Your task to perform on an android device: check google app version Image 0: 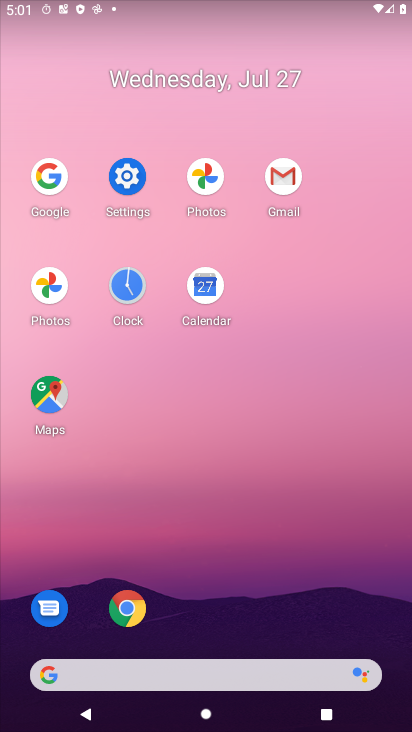
Step 0: click (45, 175)
Your task to perform on an android device: check google app version Image 1: 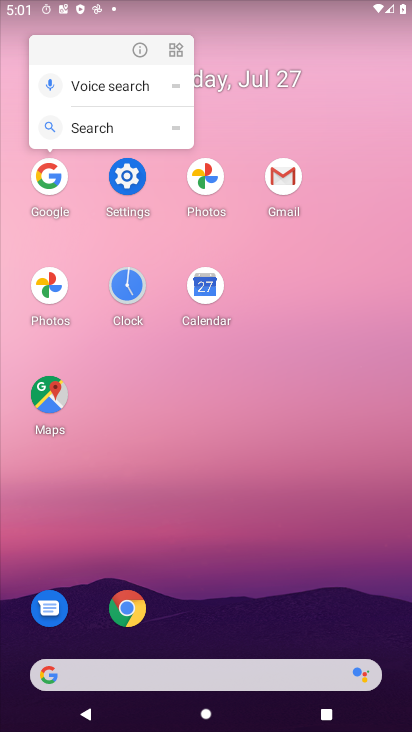
Step 1: click (143, 51)
Your task to perform on an android device: check google app version Image 2: 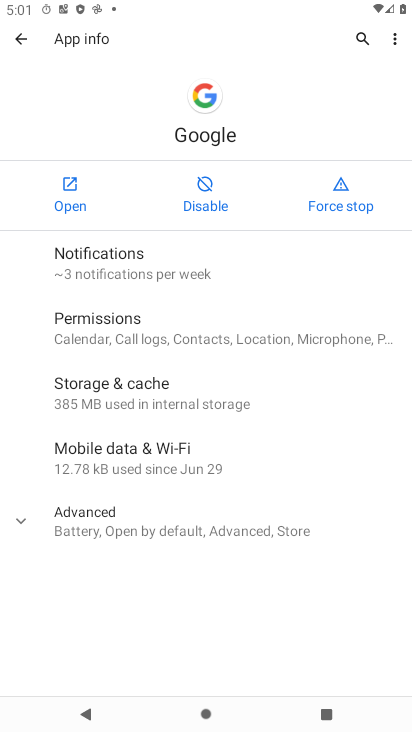
Step 2: click (155, 531)
Your task to perform on an android device: check google app version Image 3: 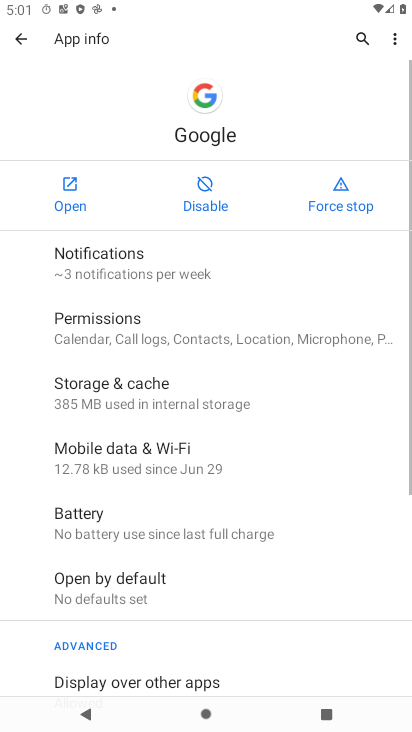
Step 3: task complete